Your task to perform on an android device: Open Google Chrome and click the shortcut for Amazon.com Image 0: 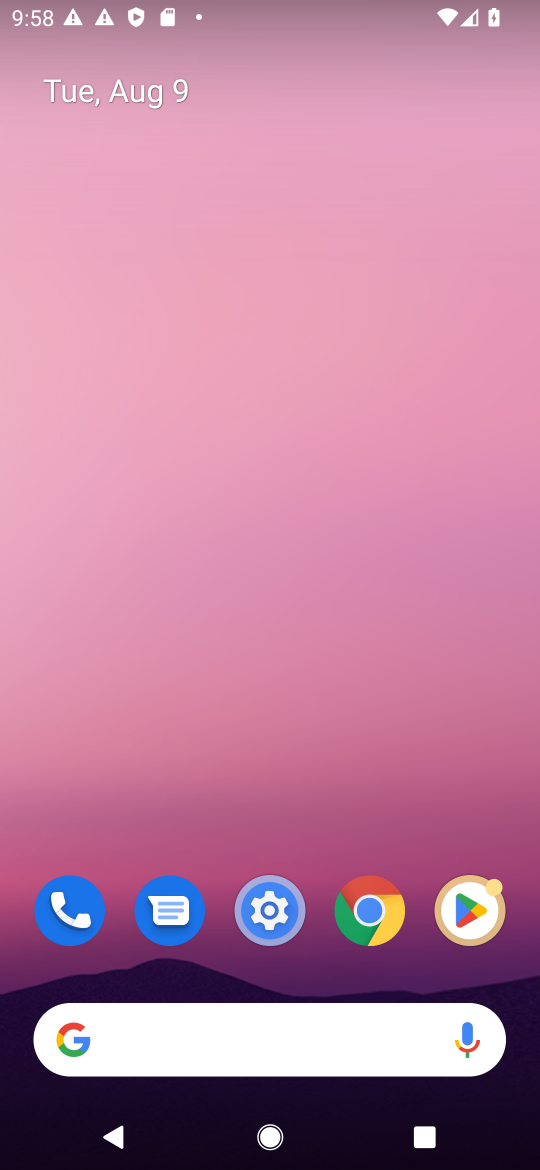
Step 0: drag from (216, 523) to (371, 233)
Your task to perform on an android device: Open Google Chrome and click the shortcut for Amazon.com Image 1: 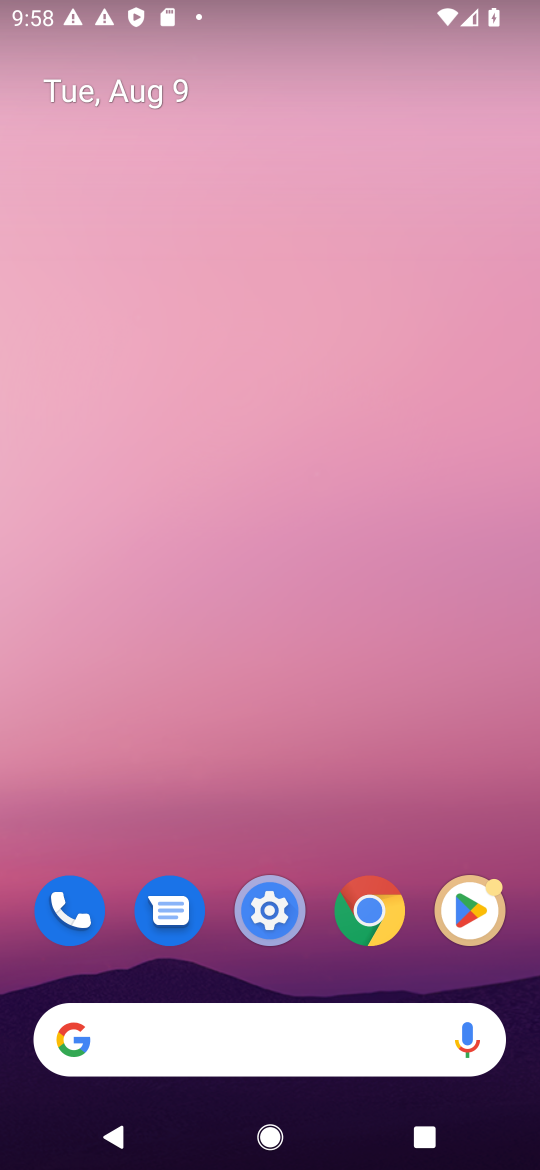
Step 1: click (391, 916)
Your task to perform on an android device: Open Google Chrome and click the shortcut for Amazon.com Image 2: 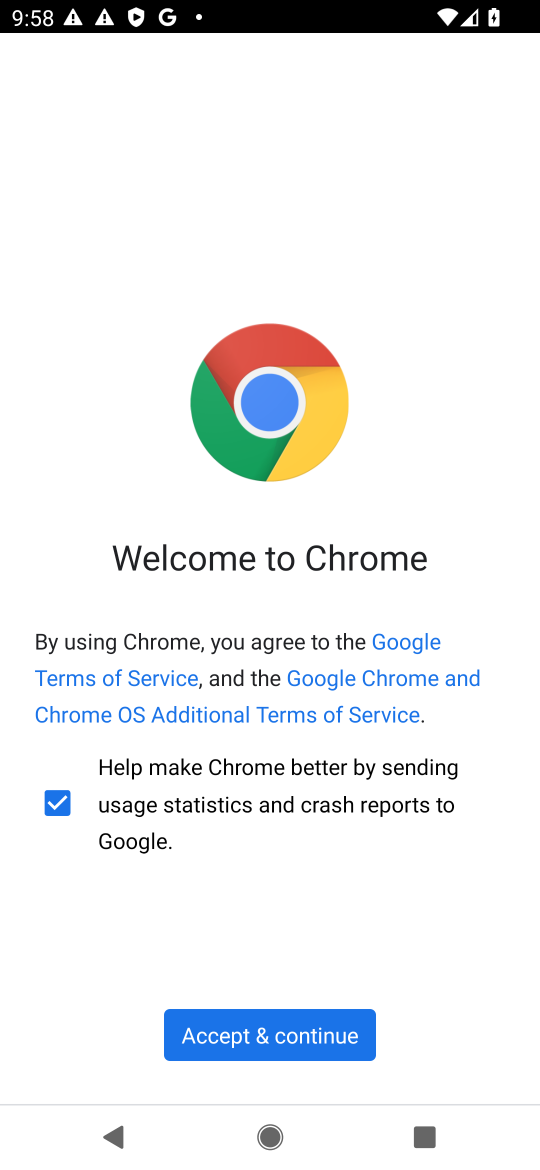
Step 2: click (281, 1028)
Your task to perform on an android device: Open Google Chrome and click the shortcut for Amazon.com Image 3: 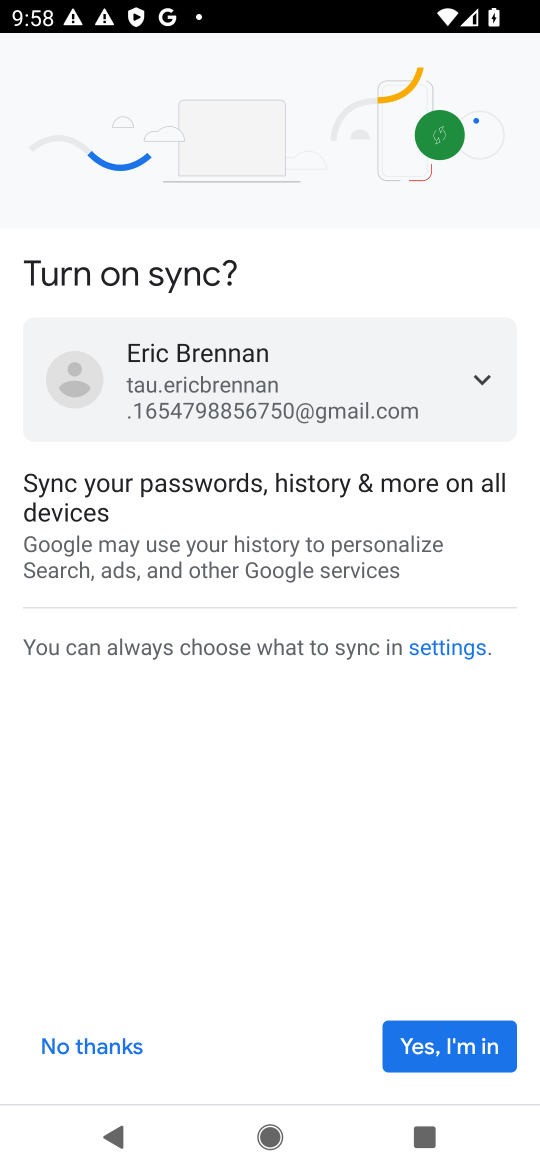
Step 3: click (90, 1040)
Your task to perform on an android device: Open Google Chrome and click the shortcut for Amazon.com Image 4: 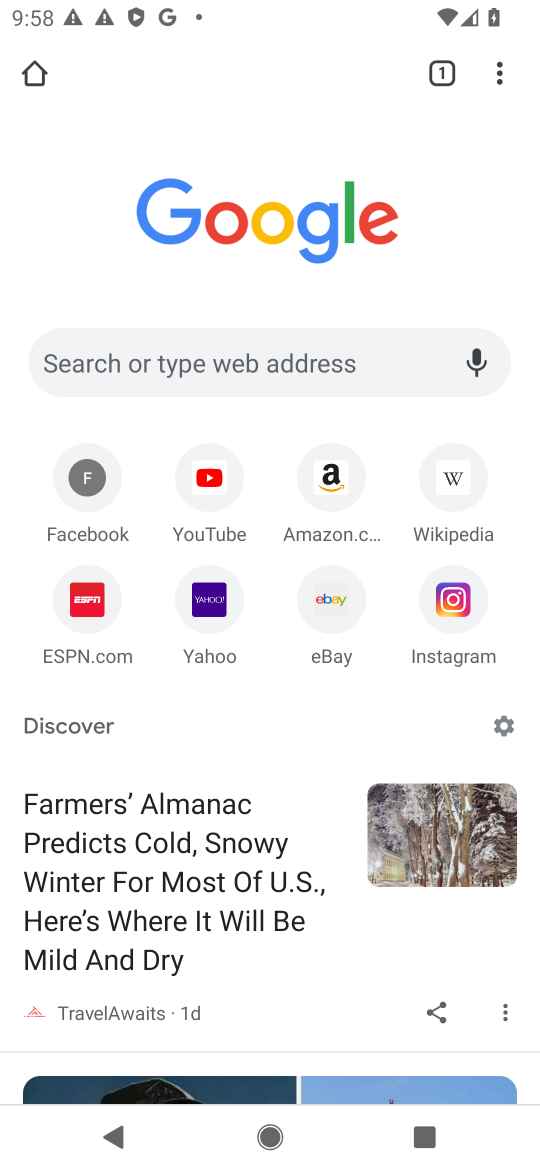
Step 4: click (344, 478)
Your task to perform on an android device: Open Google Chrome and click the shortcut for Amazon.com Image 5: 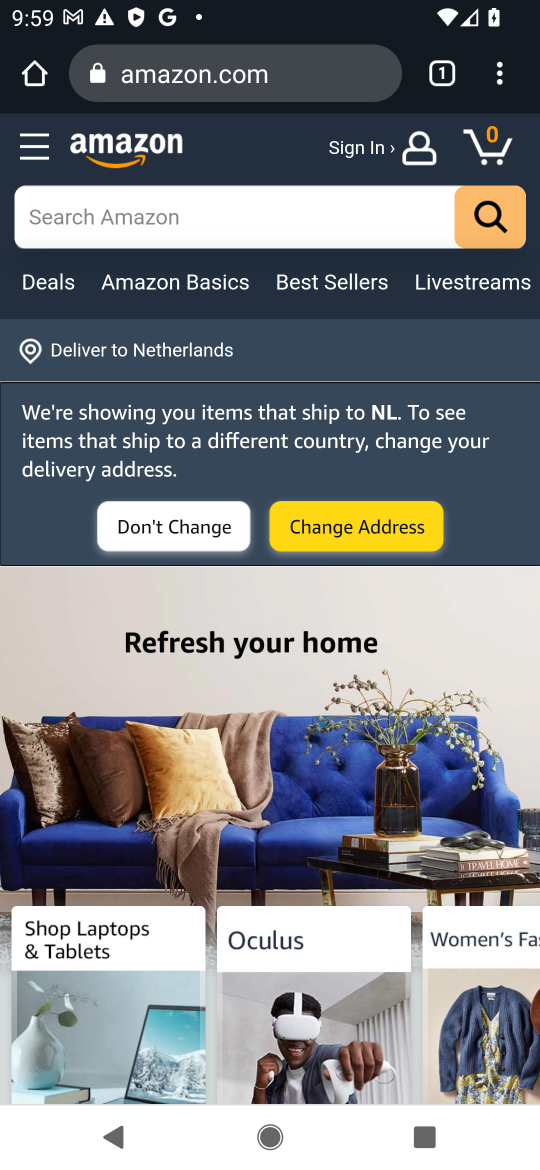
Step 5: task complete